Your task to perform on an android device: refresh tabs in the chrome app Image 0: 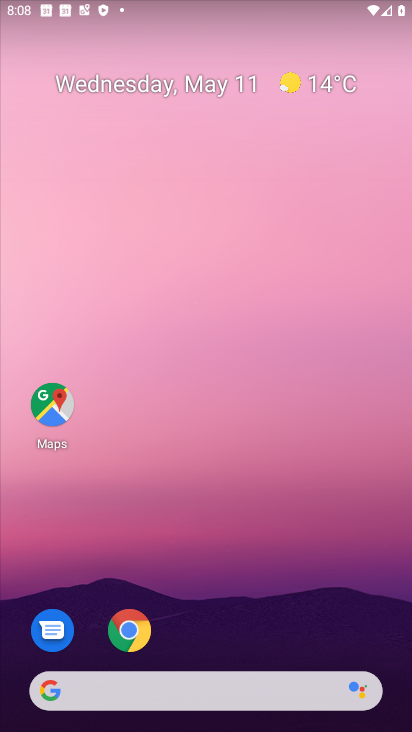
Step 0: click (135, 638)
Your task to perform on an android device: refresh tabs in the chrome app Image 1: 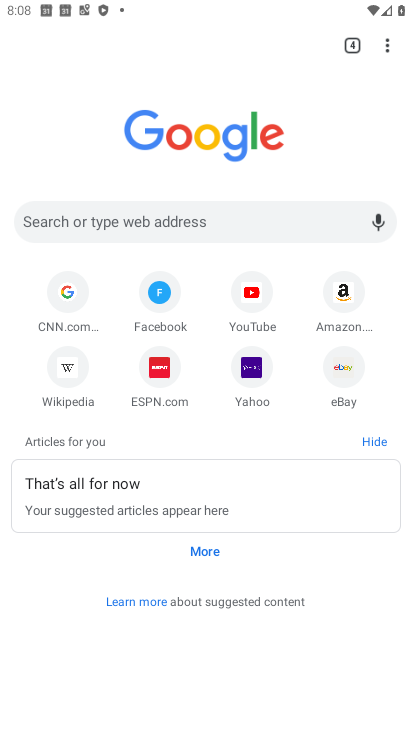
Step 1: click (385, 53)
Your task to perform on an android device: refresh tabs in the chrome app Image 2: 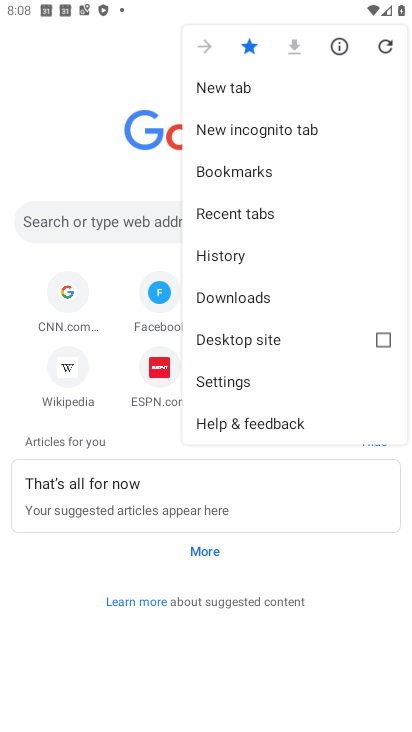
Step 2: click (387, 36)
Your task to perform on an android device: refresh tabs in the chrome app Image 3: 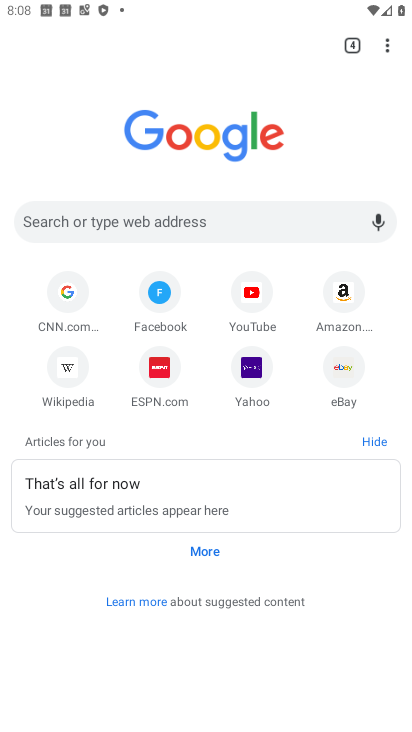
Step 3: task complete